Your task to perform on an android device: Go to Google Image 0: 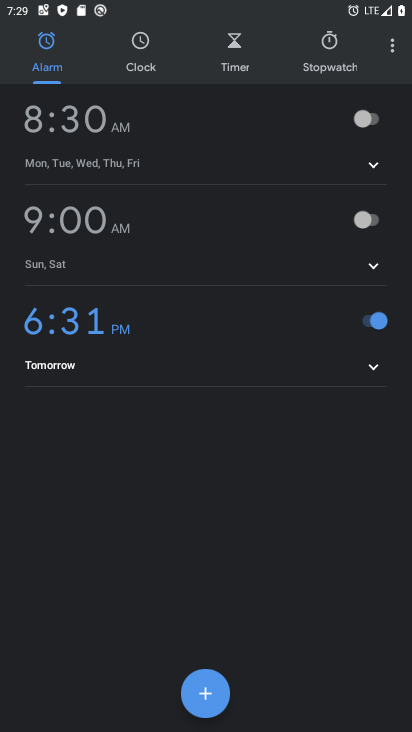
Step 0: press home button
Your task to perform on an android device: Go to Google Image 1: 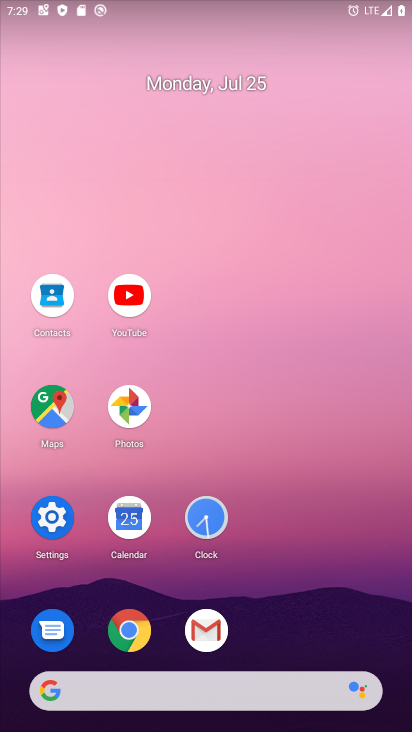
Step 1: click (46, 688)
Your task to perform on an android device: Go to Google Image 2: 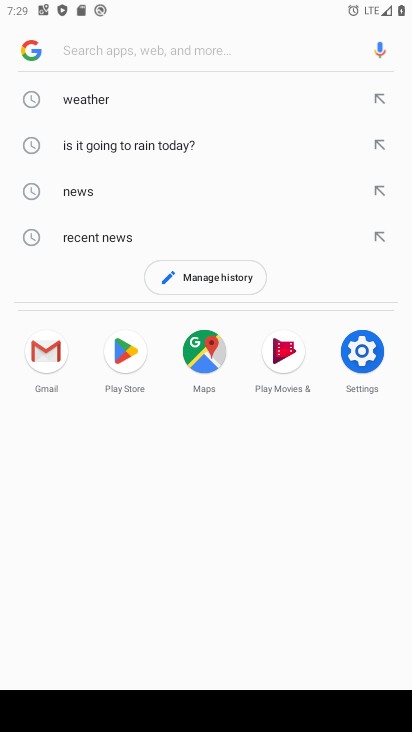
Step 2: click (25, 46)
Your task to perform on an android device: Go to Google Image 3: 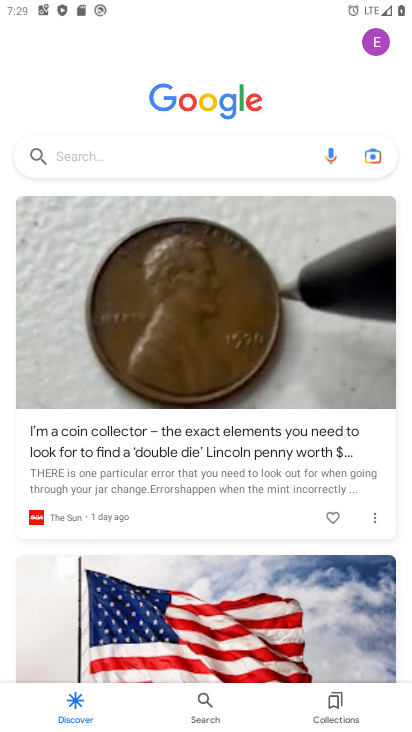
Step 3: task complete